Your task to perform on an android device: Search for Mexican restaurants on Maps Image 0: 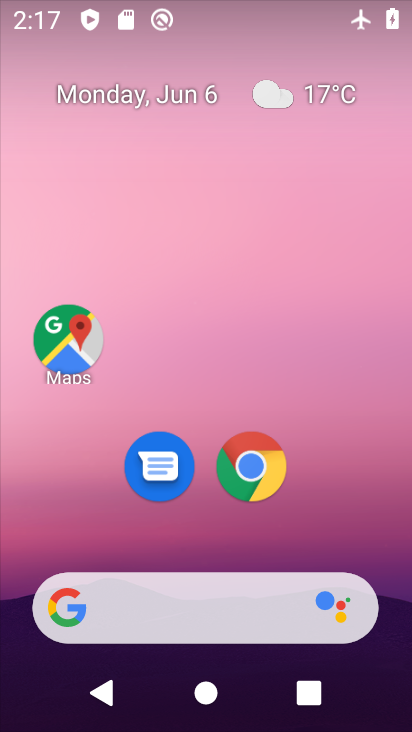
Step 0: drag from (212, 518) to (185, 62)
Your task to perform on an android device: Search for Mexican restaurants on Maps Image 1: 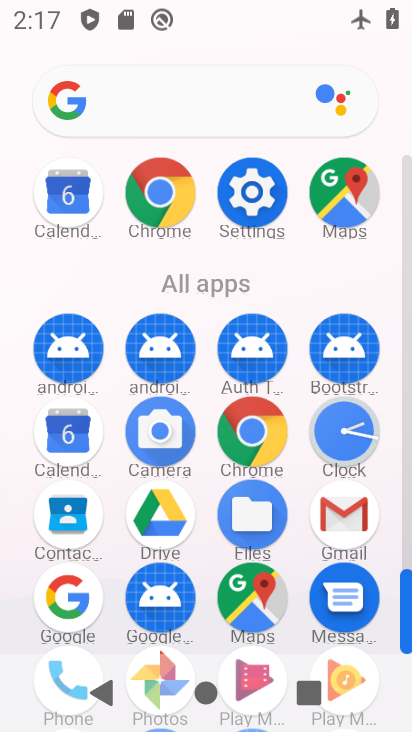
Step 1: click (255, 589)
Your task to perform on an android device: Search for Mexican restaurants on Maps Image 2: 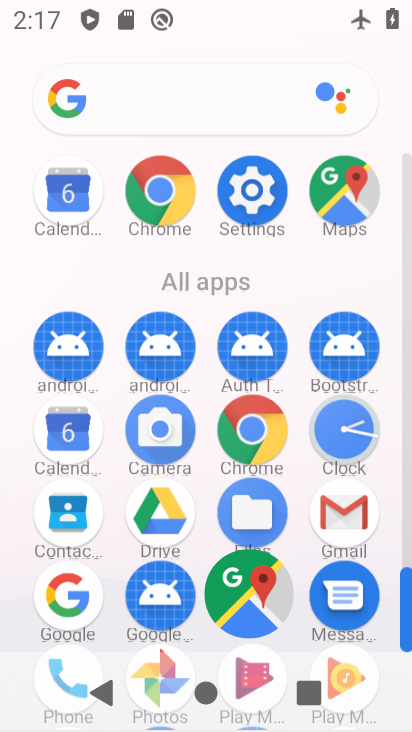
Step 2: click (253, 589)
Your task to perform on an android device: Search for Mexican restaurants on Maps Image 3: 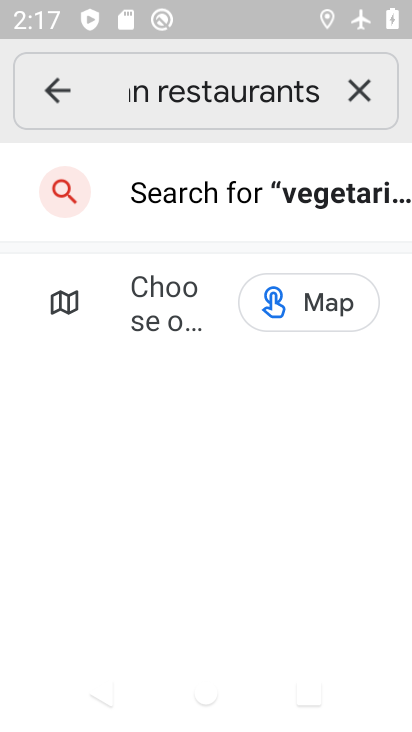
Step 3: click (45, 92)
Your task to perform on an android device: Search for Mexican restaurants on Maps Image 4: 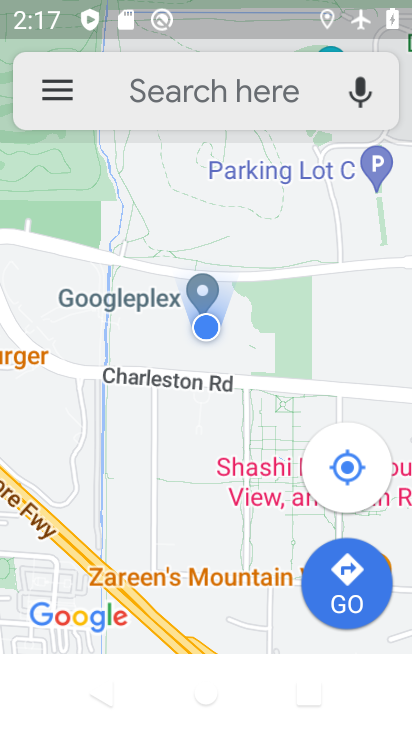
Step 4: click (144, 87)
Your task to perform on an android device: Search for Mexican restaurants on Maps Image 5: 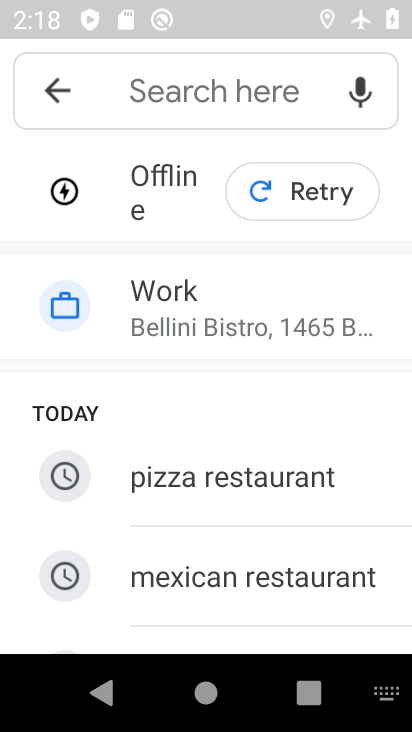
Step 5: click (198, 580)
Your task to perform on an android device: Search for Mexican restaurants on Maps Image 6: 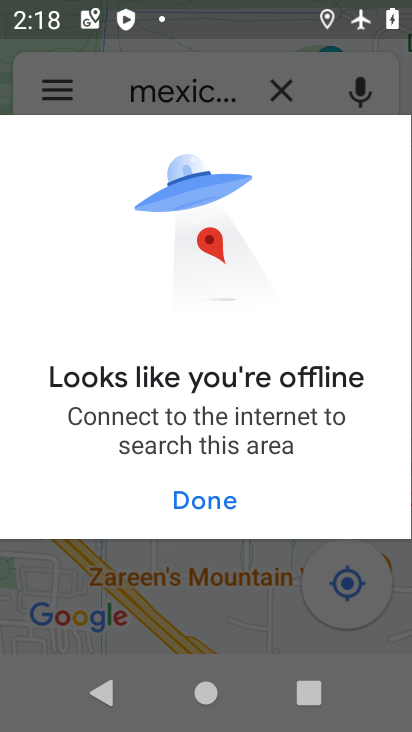
Step 6: task complete